Your task to perform on an android device: clear all cookies in the chrome app Image 0: 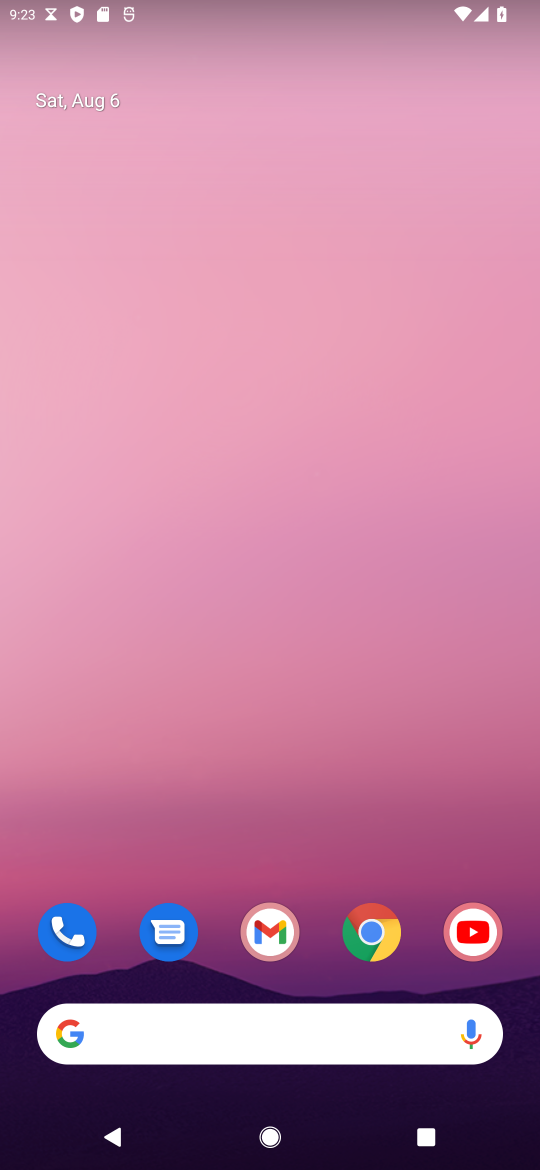
Step 0: click (371, 937)
Your task to perform on an android device: clear all cookies in the chrome app Image 1: 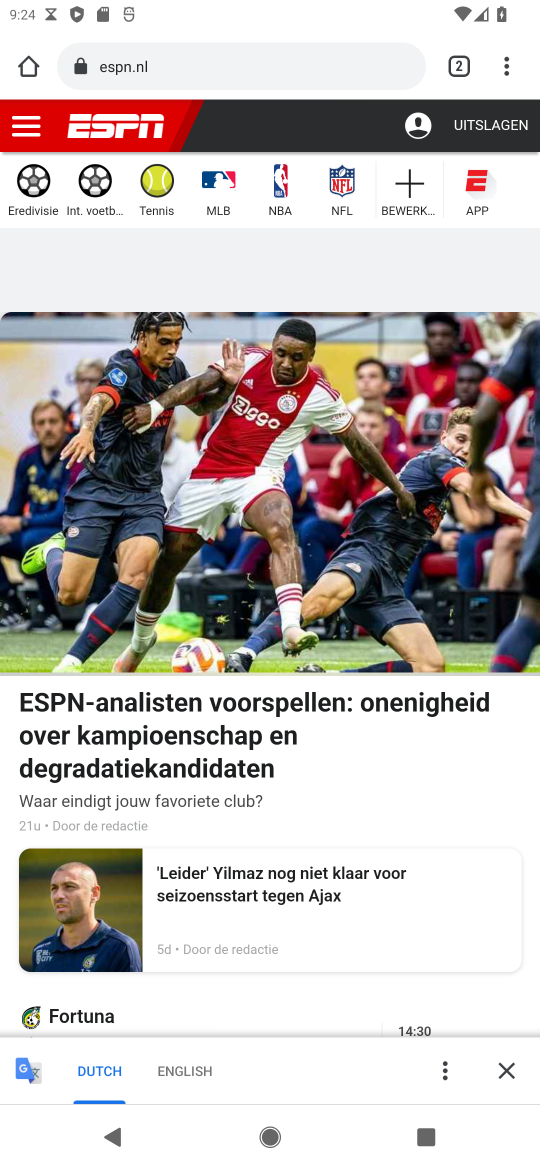
Step 1: click (509, 68)
Your task to perform on an android device: clear all cookies in the chrome app Image 2: 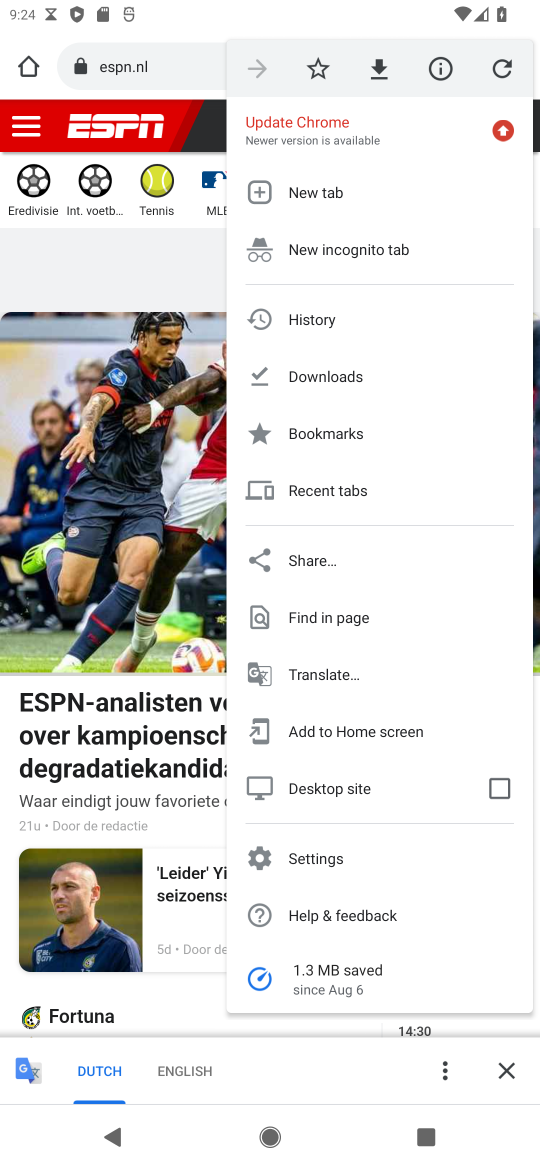
Step 2: click (311, 859)
Your task to perform on an android device: clear all cookies in the chrome app Image 3: 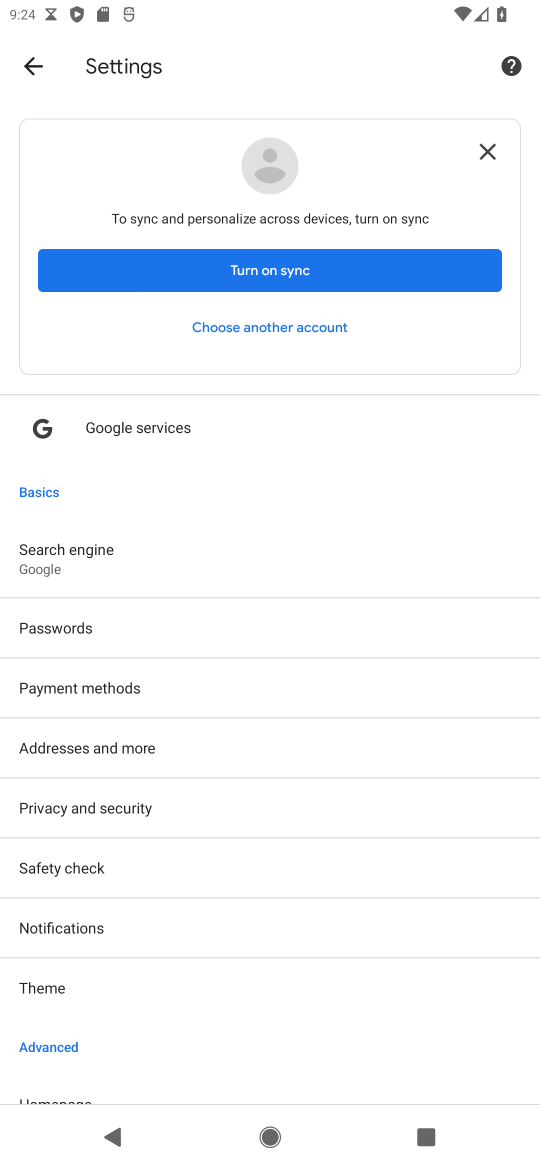
Step 3: drag from (138, 901) to (202, 791)
Your task to perform on an android device: clear all cookies in the chrome app Image 4: 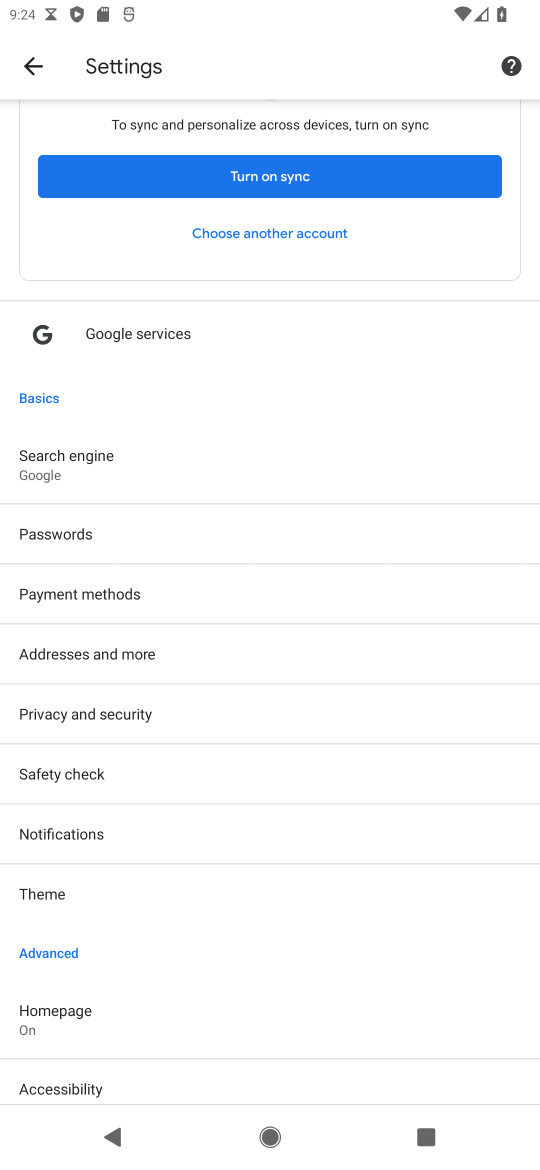
Step 4: drag from (223, 984) to (324, 818)
Your task to perform on an android device: clear all cookies in the chrome app Image 5: 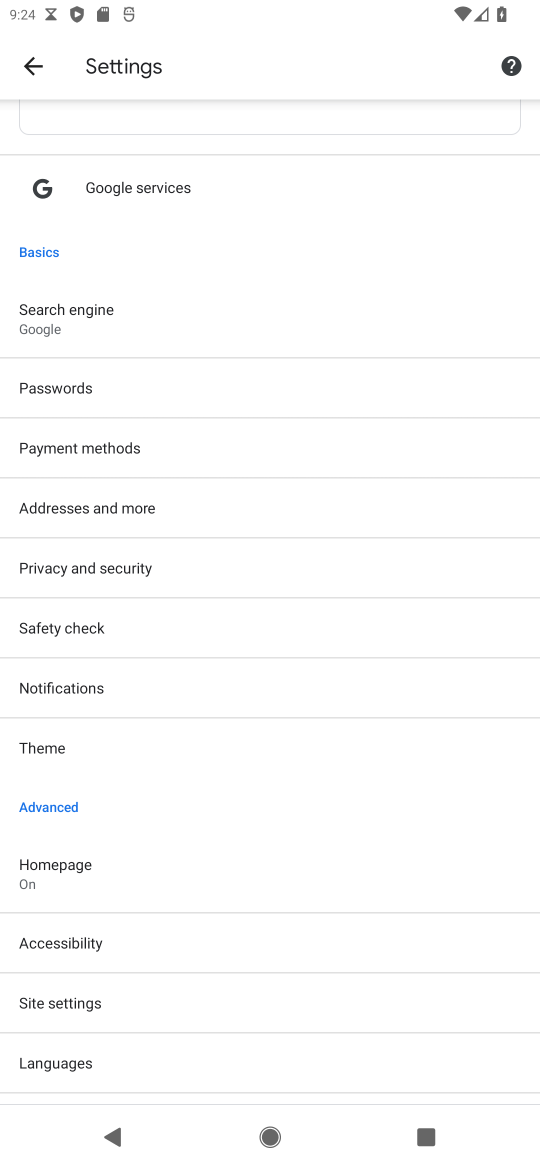
Step 5: drag from (115, 879) to (228, 747)
Your task to perform on an android device: clear all cookies in the chrome app Image 6: 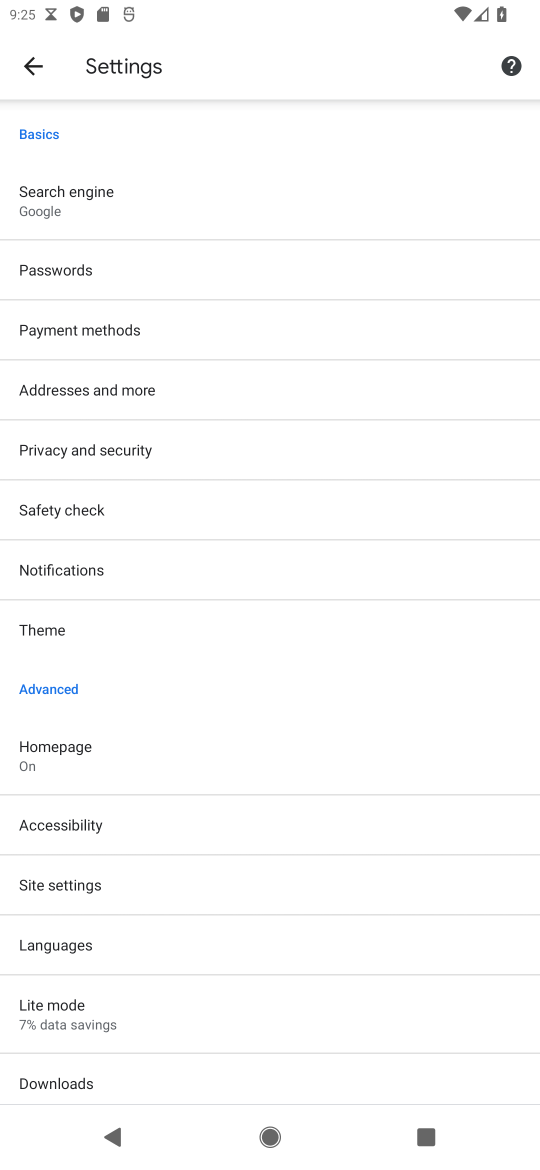
Step 6: click (87, 463)
Your task to perform on an android device: clear all cookies in the chrome app Image 7: 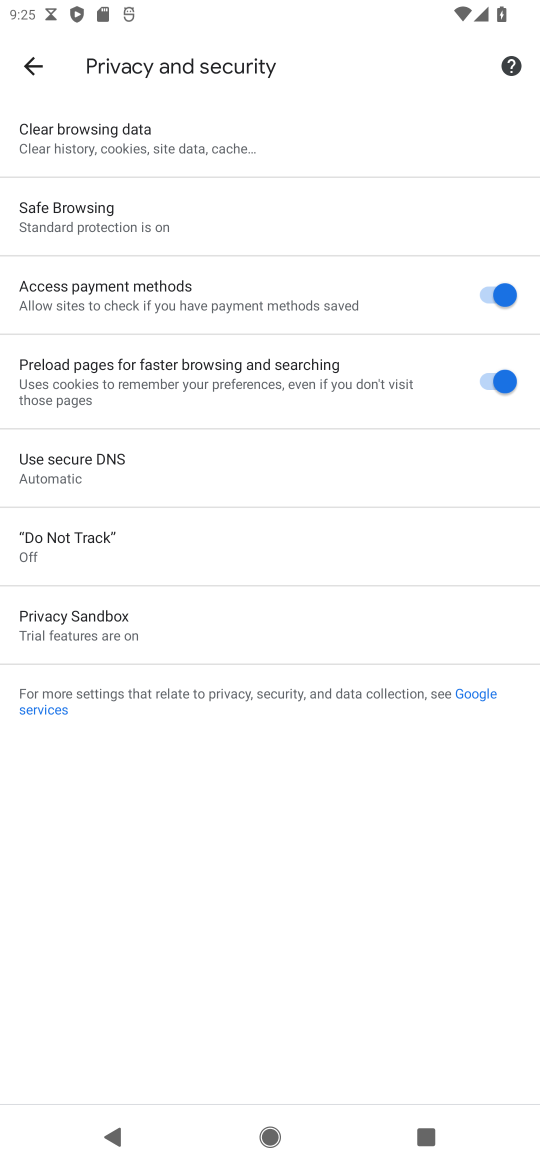
Step 7: click (132, 145)
Your task to perform on an android device: clear all cookies in the chrome app Image 8: 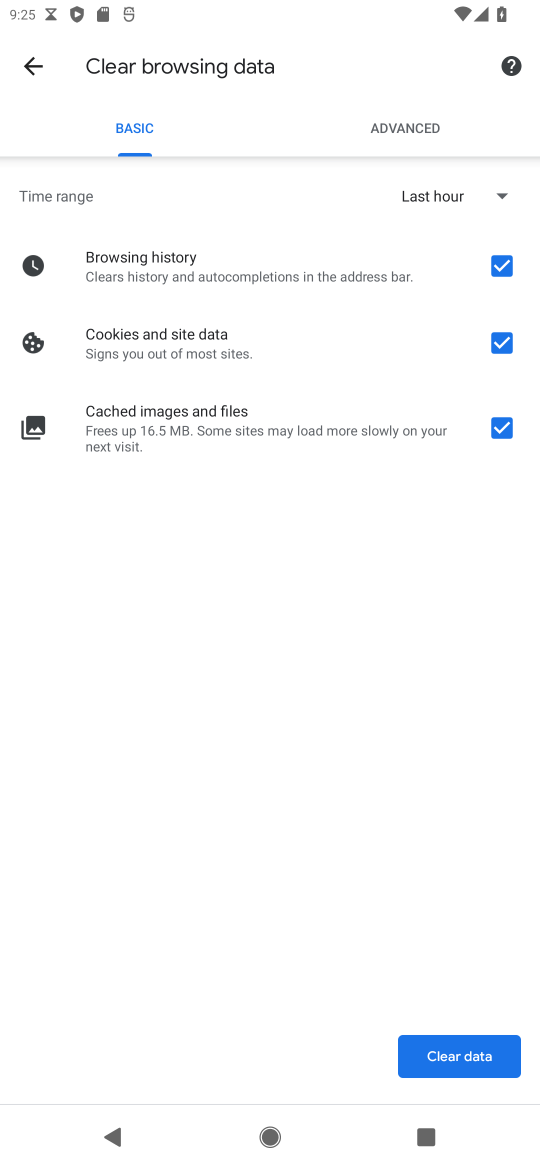
Step 8: click (501, 196)
Your task to perform on an android device: clear all cookies in the chrome app Image 9: 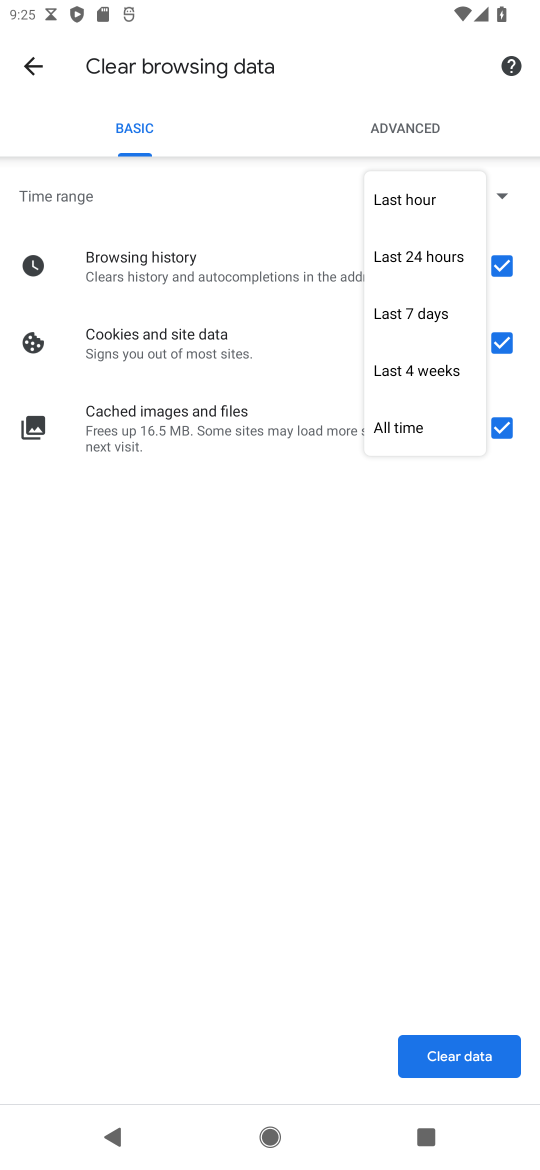
Step 9: click (391, 424)
Your task to perform on an android device: clear all cookies in the chrome app Image 10: 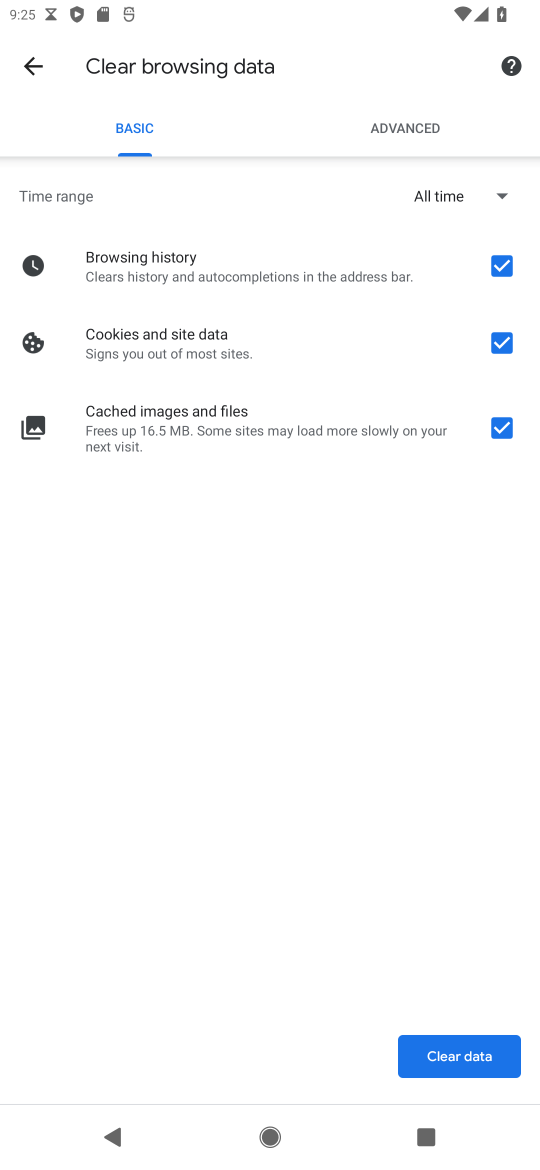
Step 10: click (504, 281)
Your task to perform on an android device: clear all cookies in the chrome app Image 11: 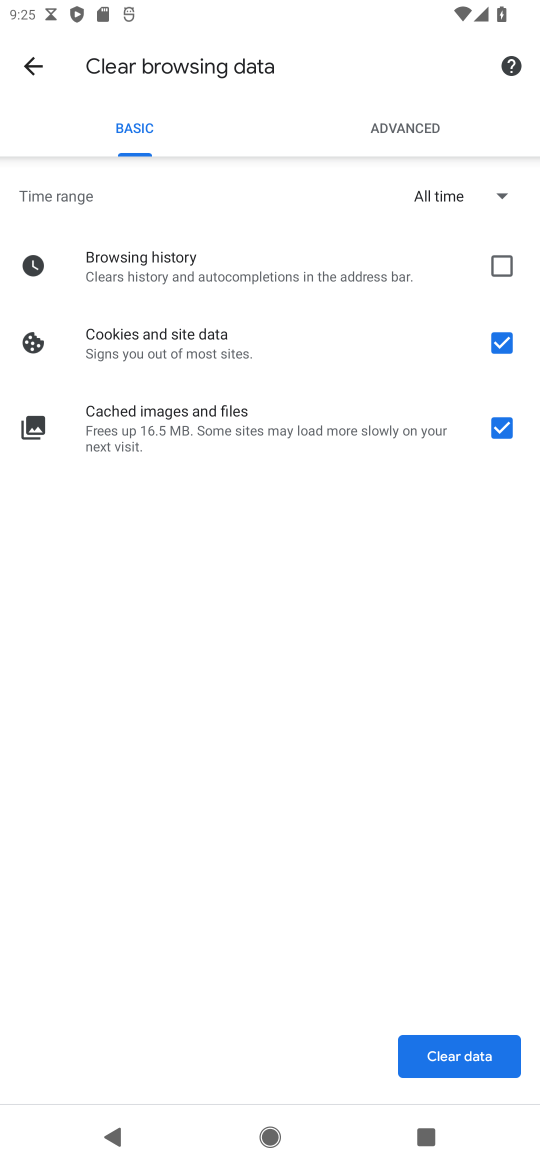
Step 11: click (507, 443)
Your task to perform on an android device: clear all cookies in the chrome app Image 12: 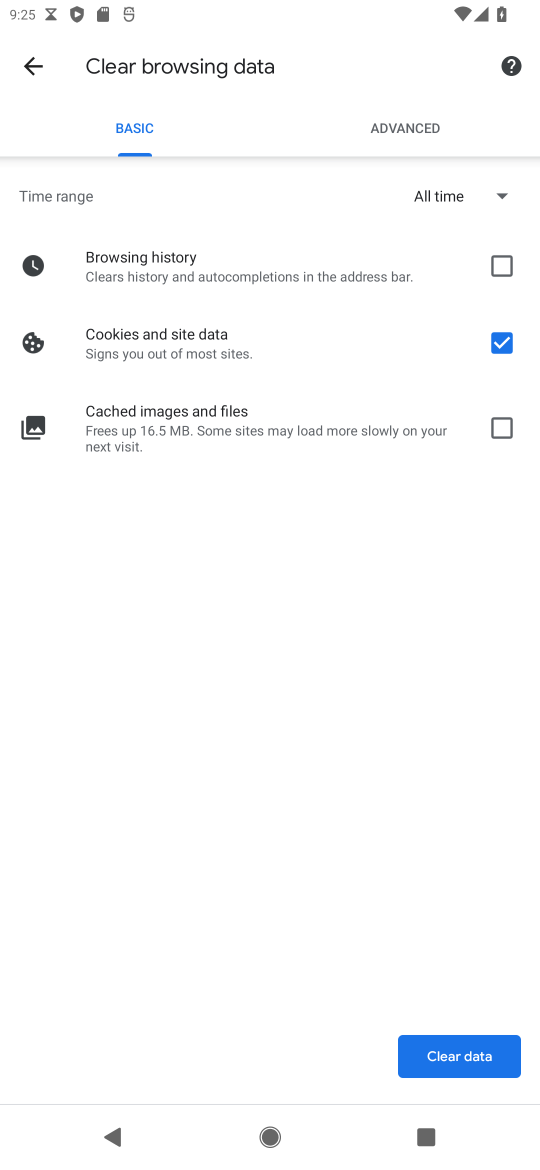
Step 12: click (462, 1064)
Your task to perform on an android device: clear all cookies in the chrome app Image 13: 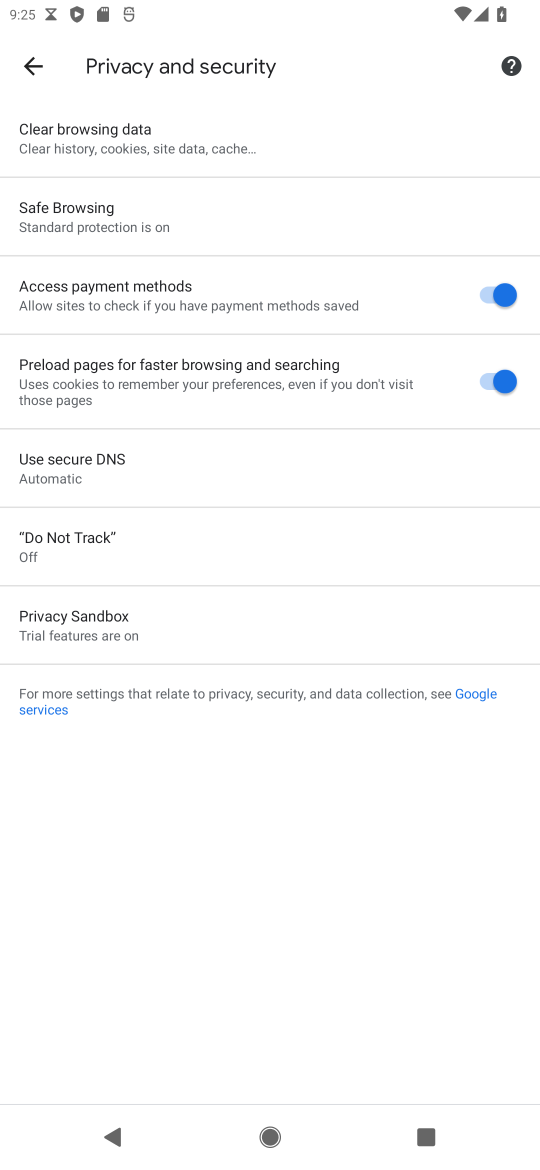
Step 13: task complete